Your task to perform on an android device: set the timer Image 0: 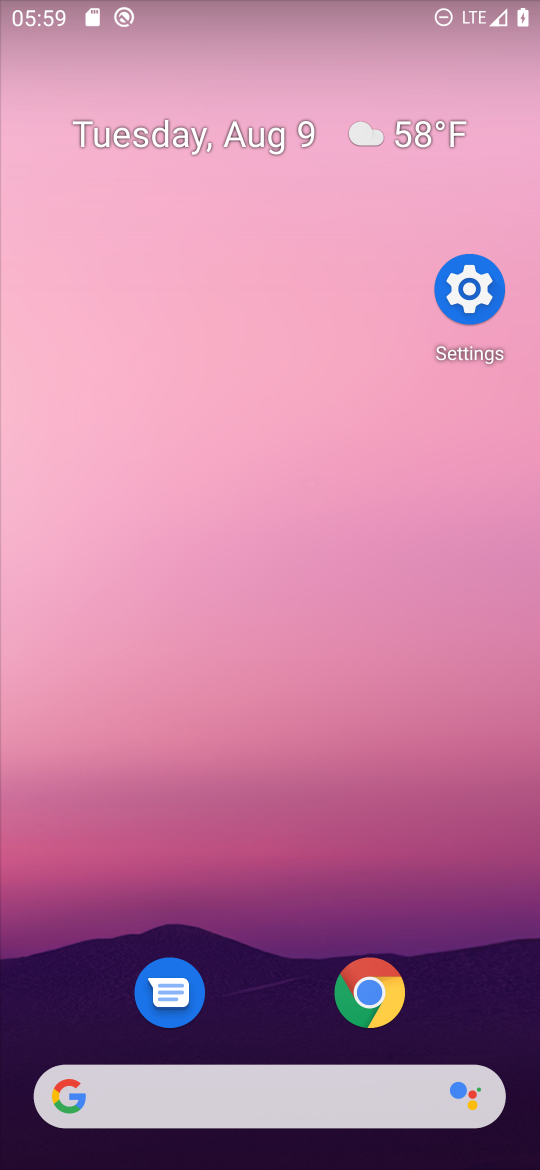
Step 0: drag from (229, 1098) to (333, 54)
Your task to perform on an android device: set the timer Image 1: 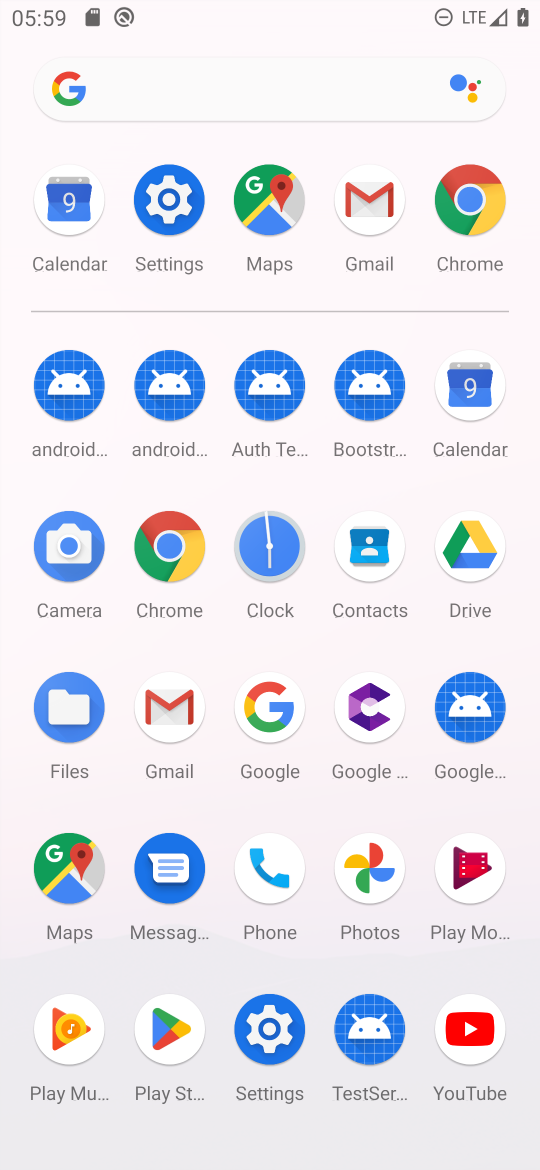
Step 1: click (285, 553)
Your task to perform on an android device: set the timer Image 2: 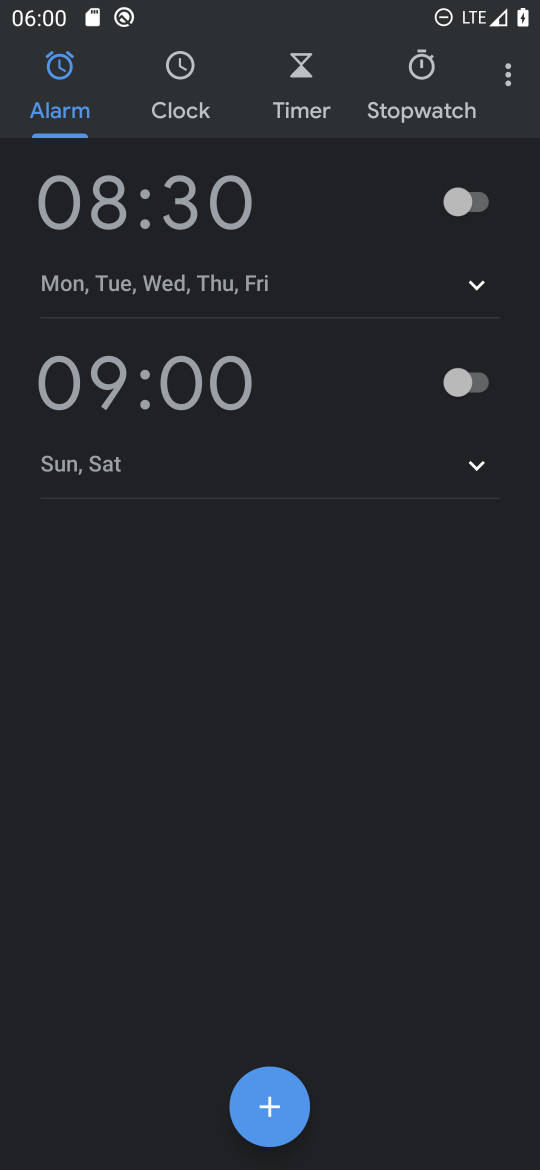
Step 2: click (283, 52)
Your task to perform on an android device: set the timer Image 3: 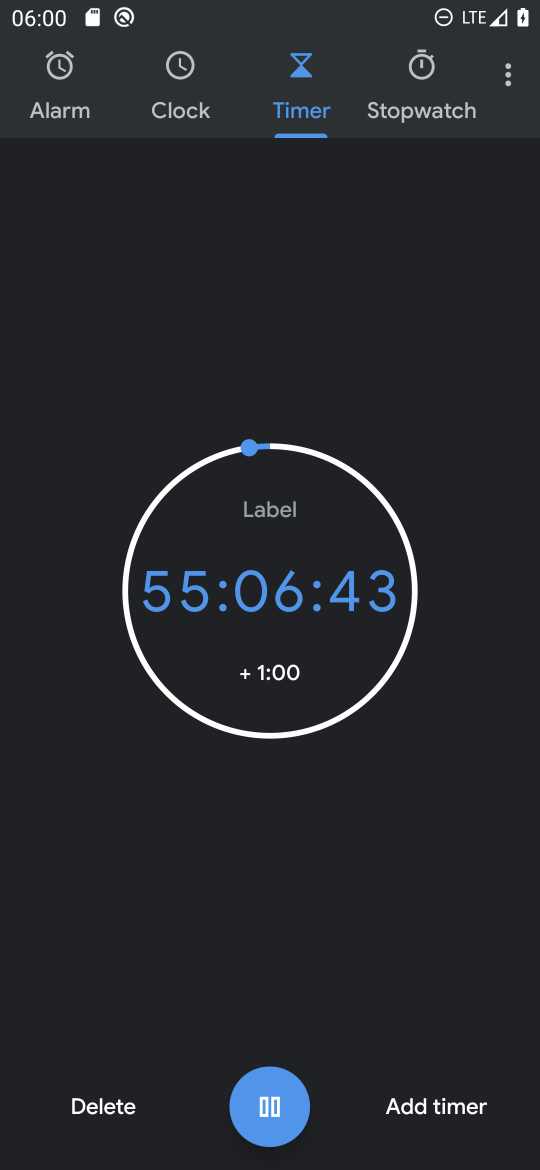
Step 3: task complete